Your task to perform on an android device: What's the weather? Image 0: 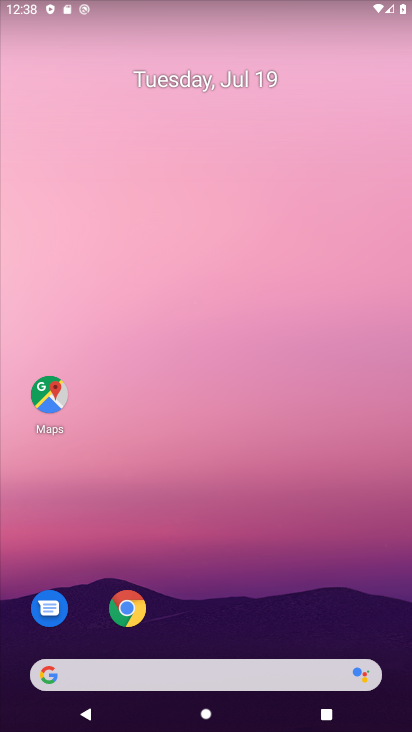
Step 0: drag from (257, 535) to (288, 237)
Your task to perform on an android device: What's the weather? Image 1: 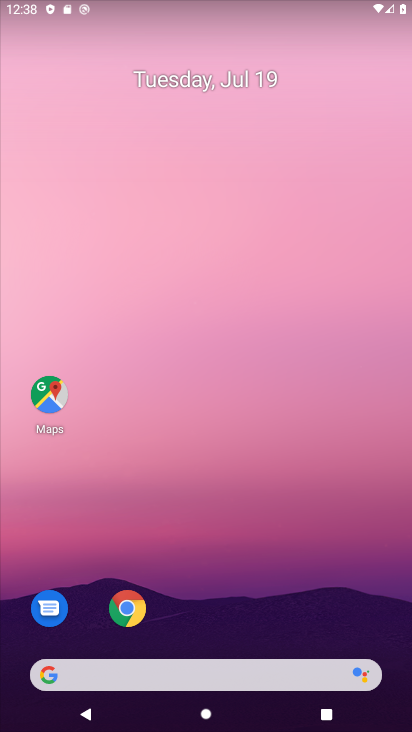
Step 1: click (252, 679)
Your task to perform on an android device: What's the weather? Image 2: 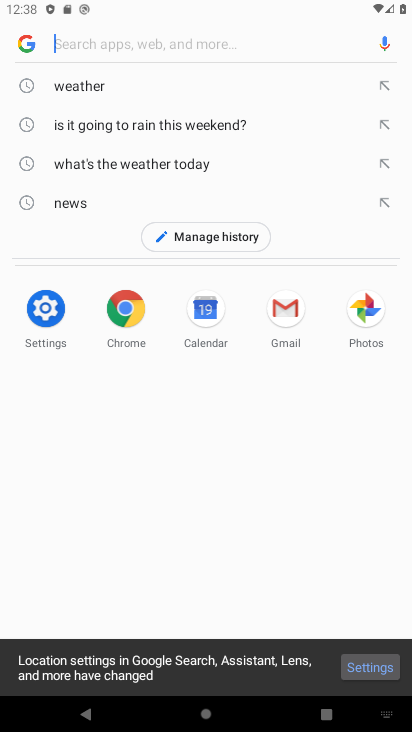
Step 2: click (85, 43)
Your task to perform on an android device: What's the weather? Image 3: 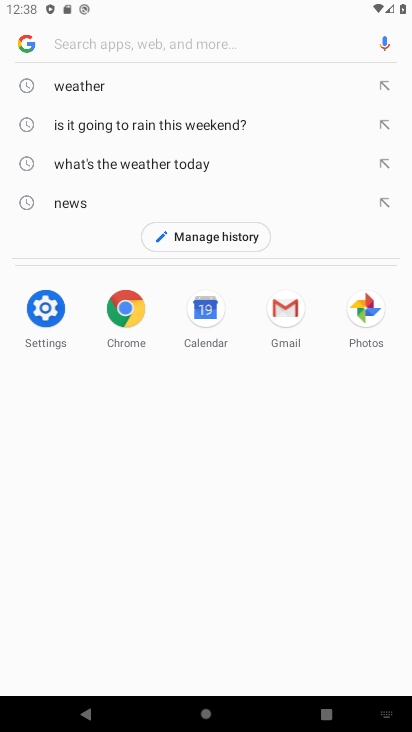
Step 3: type "What's the weather?"
Your task to perform on an android device: What's the weather? Image 4: 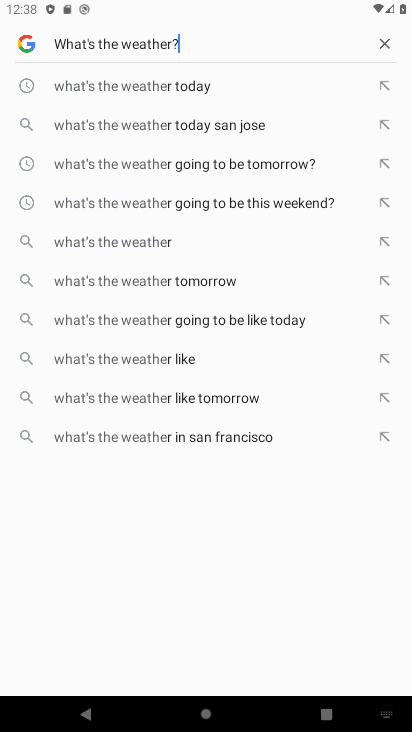
Step 4: press enter
Your task to perform on an android device: What's the weather? Image 5: 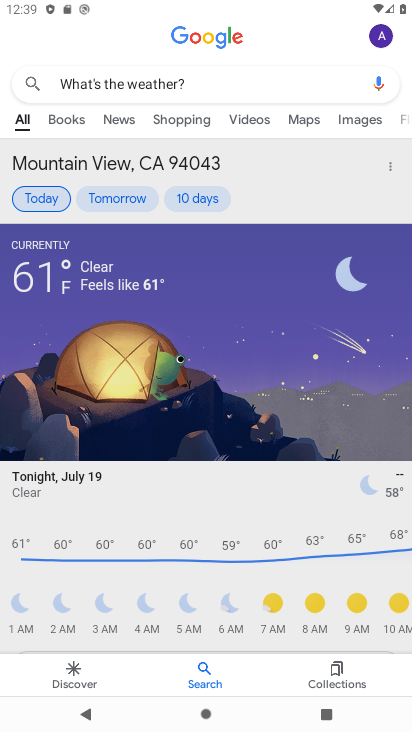
Step 5: task complete